Your task to perform on an android device: see tabs open on other devices in the chrome app Image 0: 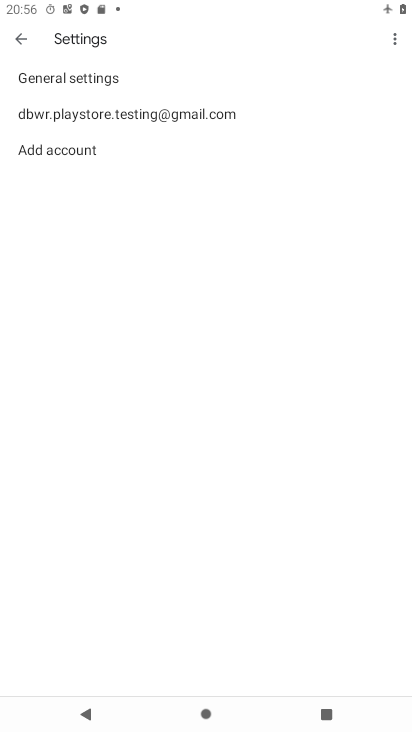
Step 0: press home button
Your task to perform on an android device: see tabs open on other devices in the chrome app Image 1: 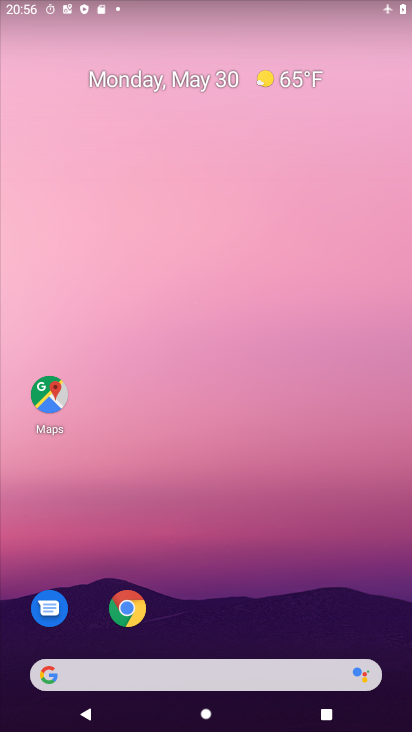
Step 1: click (132, 612)
Your task to perform on an android device: see tabs open on other devices in the chrome app Image 2: 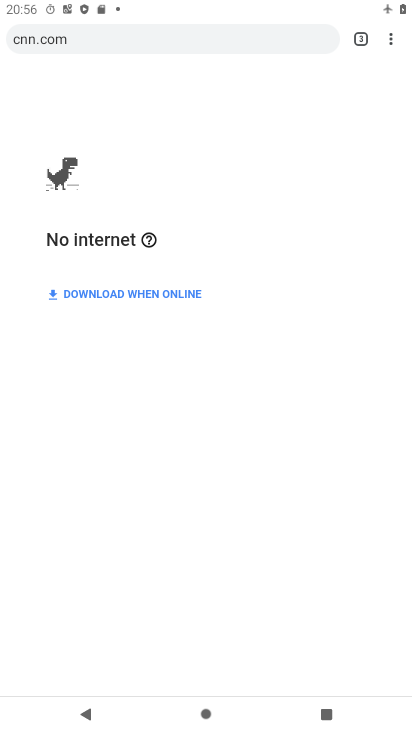
Step 2: click (392, 36)
Your task to perform on an android device: see tabs open on other devices in the chrome app Image 3: 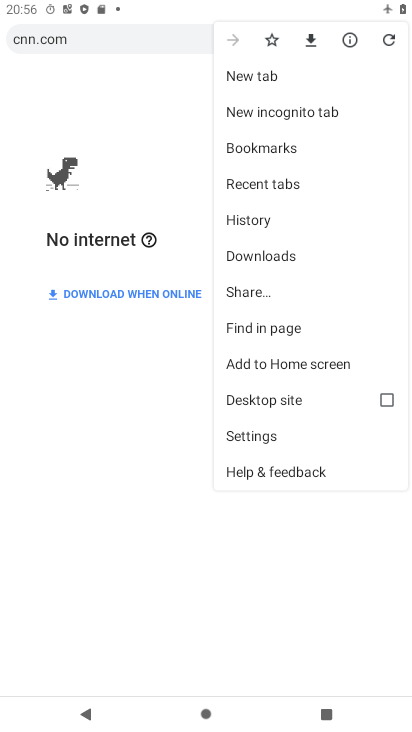
Step 3: click (319, 188)
Your task to perform on an android device: see tabs open on other devices in the chrome app Image 4: 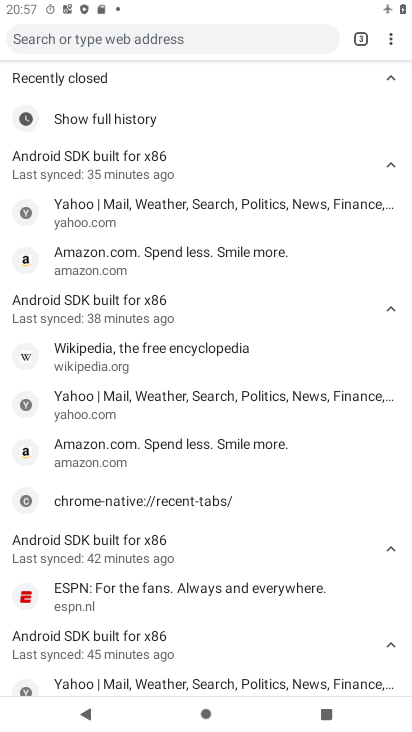
Step 4: task complete